Your task to perform on an android device: stop showing notifications on the lock screen Image 0: 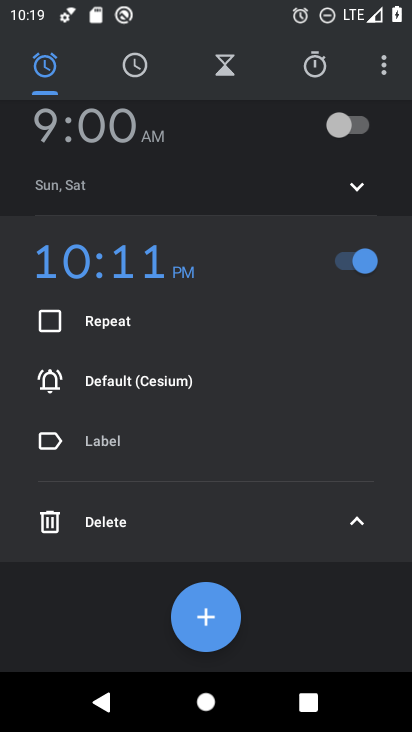
Step 0: press home button
Your task to perform on an android device: stop showing notifications on the lock screen Image 1: 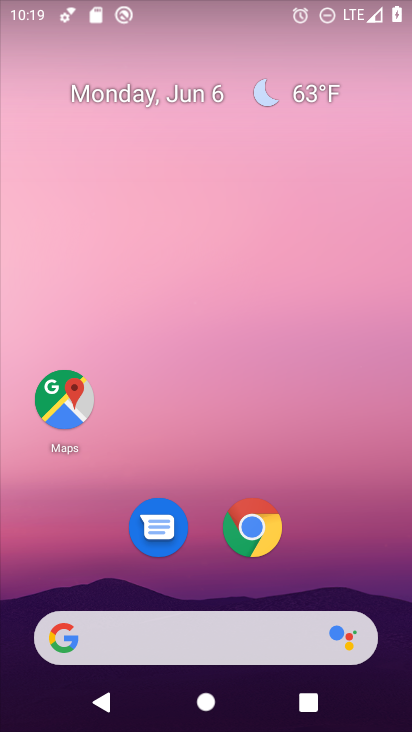
Step 1: drag from (367, 504) to (370, 142)
Your task to perform on an android device: stop showing notifications on the lock screen Image 2: 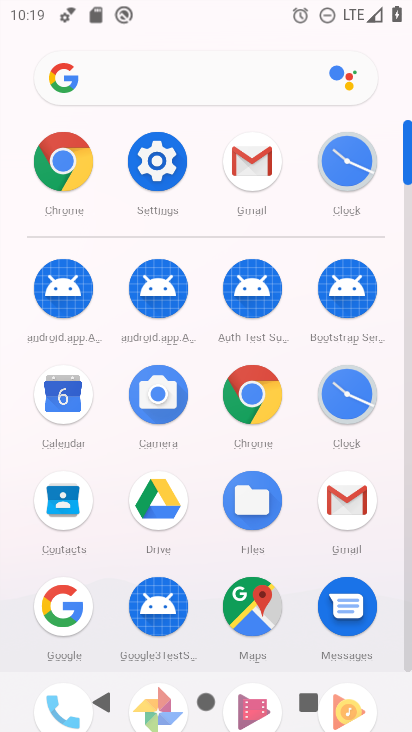
Step 2: click (162, 171)
Your task to perform on an android device: stop showing notifications on the lock screen Image 3: 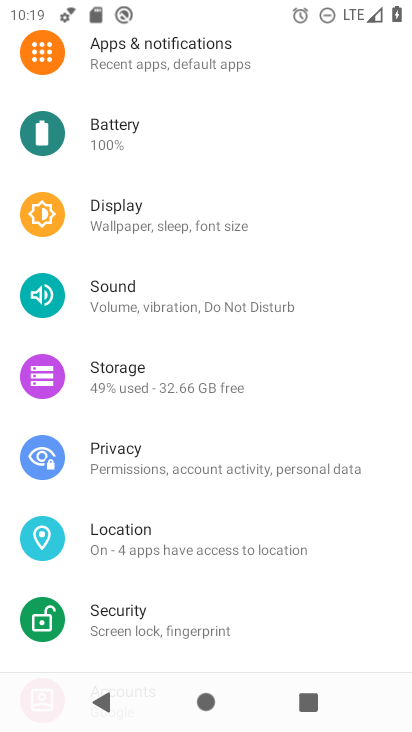
Step 3: drag from (347, 240) to (356, 355)
Your task to perform on an android device: stop showing notifications on the lock screen Image 4: 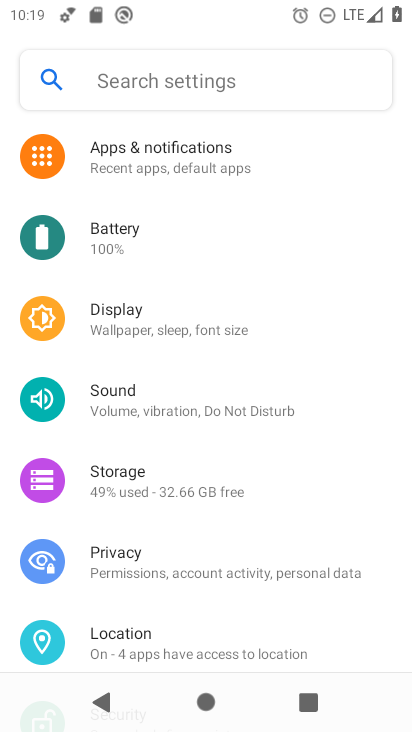
Step 4: drag from (344, 178) to (352, 306)
Your task to perform on an android device: stop showing notifications on the lock screen Image 5: 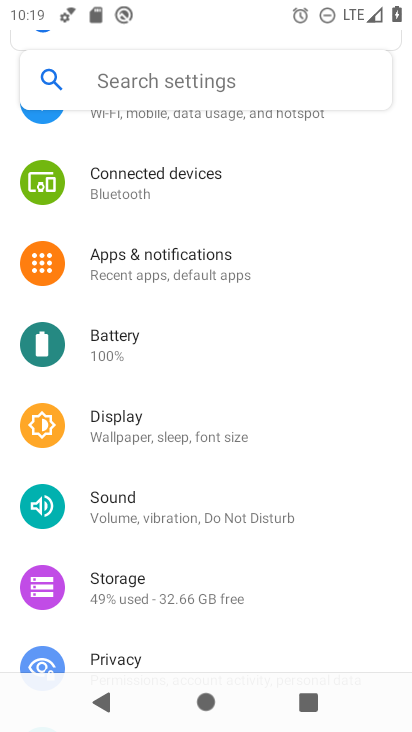
Step 5: drag from (341, 154) to (347, 349)
Your task to perform on an android device: stop showing notifications on the lock screen Image 6: 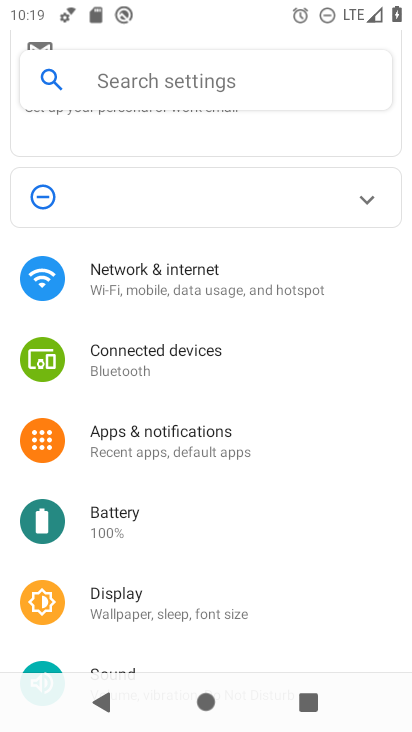
Step 6: click (228, 428)
Your task to perform on an android device: stop showing notifications on the lock screen Image 7: 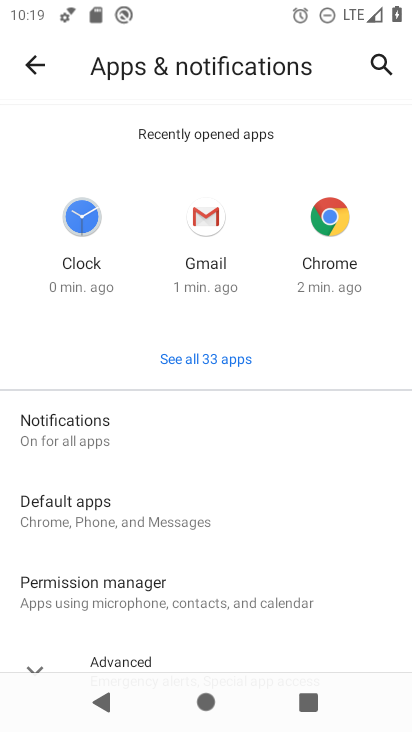
Step 7: click (172, 449)
Your task to perform on an android device: stop showing notifications on the lock screen Image 8: 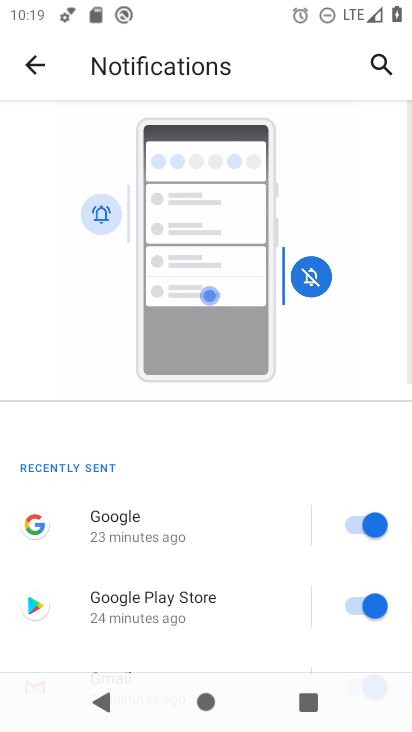
Step 8: drag from (252, 476) to (261, 363)
Your task to perform on an android device: stop showing notifications on the lock screen Image 9: 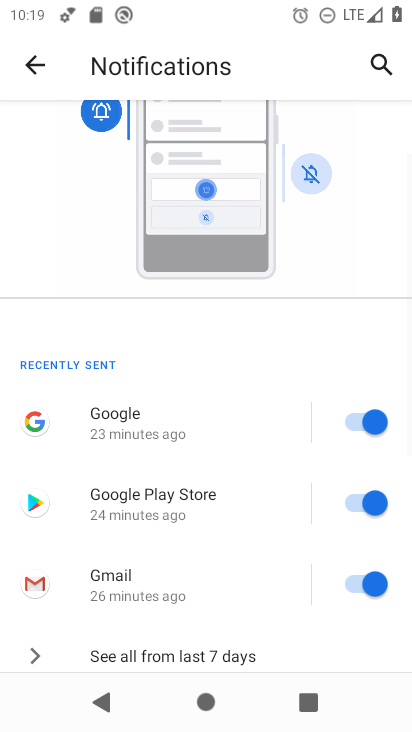
Step 9: drag from (242, 494) to (280, 365)
Your task to perform on an android device: stop showing notifications on the lock screen Image 10: 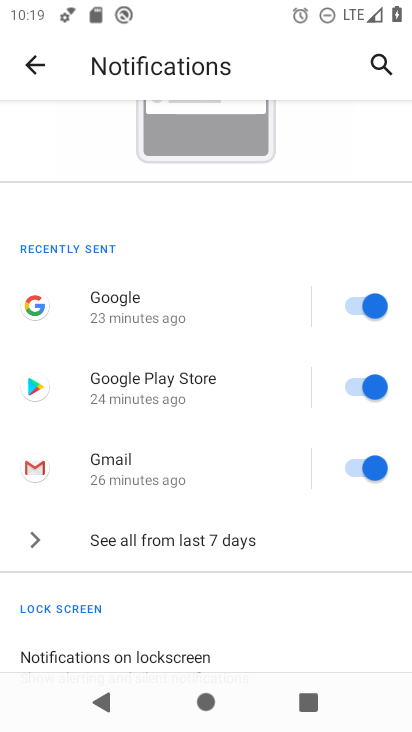
Step 10: drag from (266, 474) to (250, 323)
Your task to perform on an android device: stop showing notifications on the lock screen Image 11: 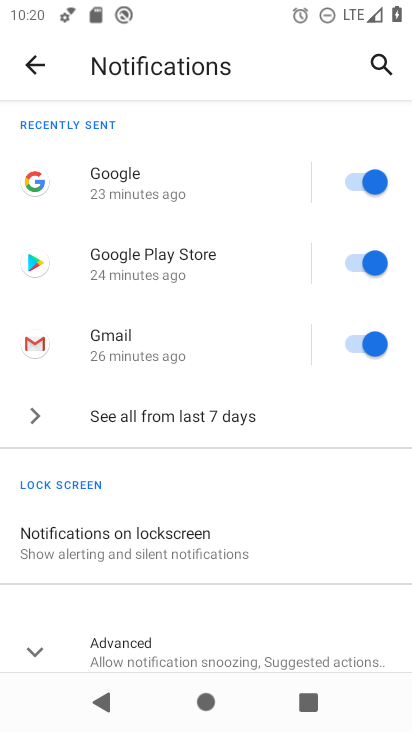
Step 11: drag from (288, 485) to (312, 348)
Your task to perform on an android device: stop showing notifications on the lock screen Image 12: 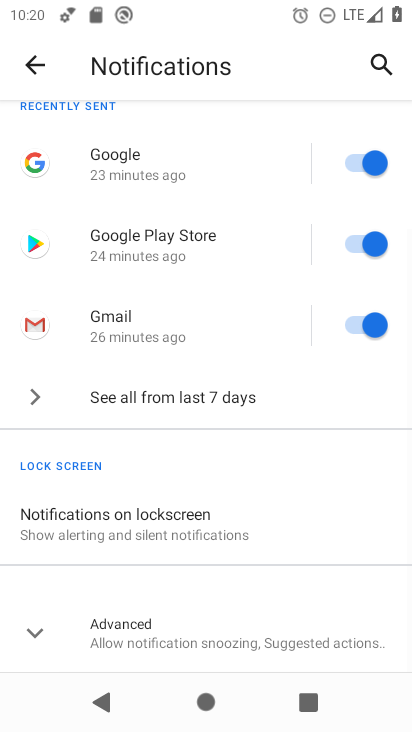
Step 12: click (265, 525)
Your task to perform on an android device: stop showing notifications on the lock screen Image 13: 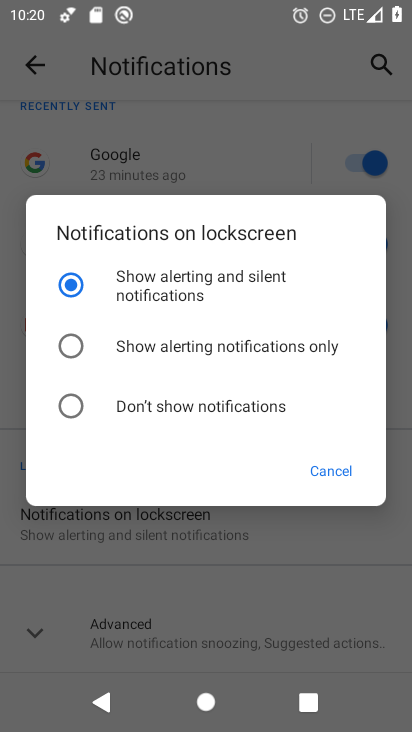
Step 13: click (178, 406)
Your task to perform on an android device: stop showing notifications on the lock screen Image 14: 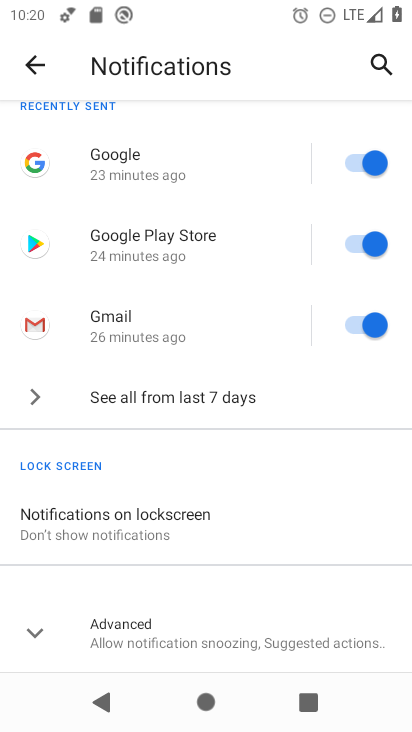
Step 14: task complete